Your task to perform on an android device: Search for sushi restaurants on Maps Image 0: 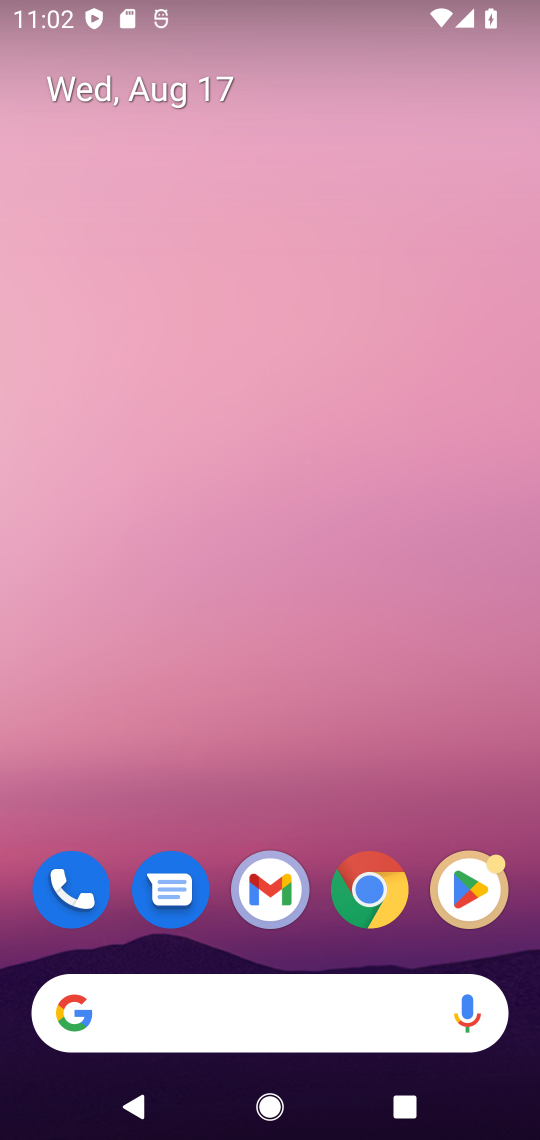
Step 0: drag from (300, 316) to (294, 21)
Your task to perform on an android device: Search for sushi restaurants on Maps Image 1: 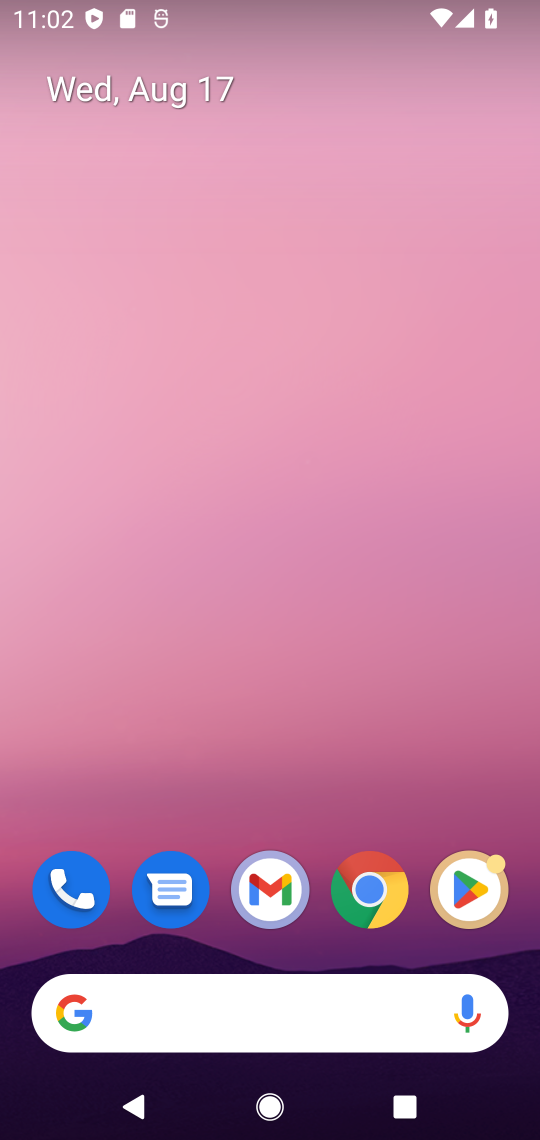
Step 1: drag from (243, 836) to (257, 1)
Your task to perform on an android device: Search for sushi restaurants on Maps Image 2: 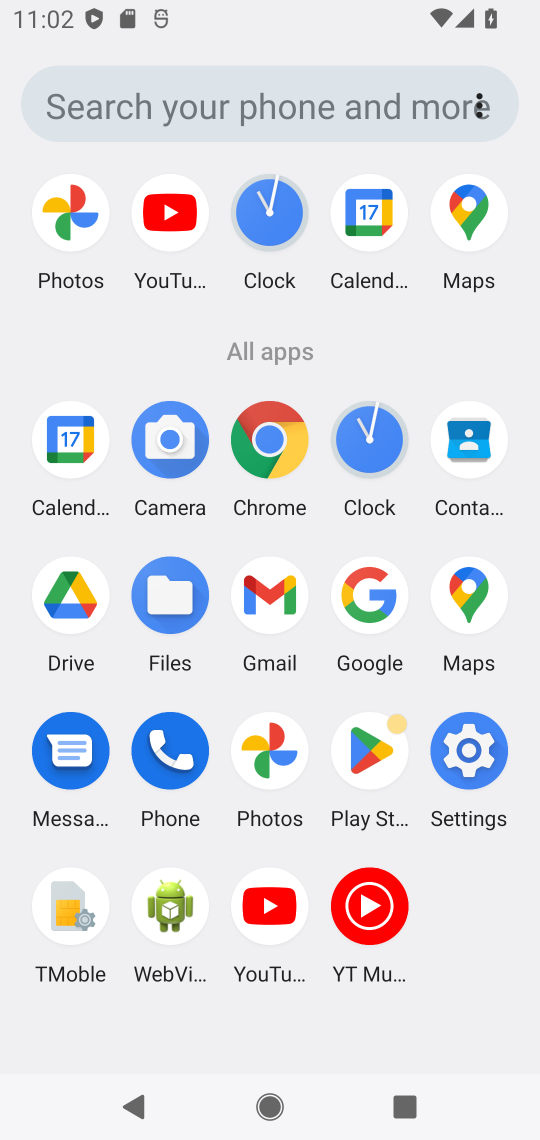
Step 2: click (464, 204)
Your task to perform on an android device: Search for sushi restaurants on Maps Image 3: 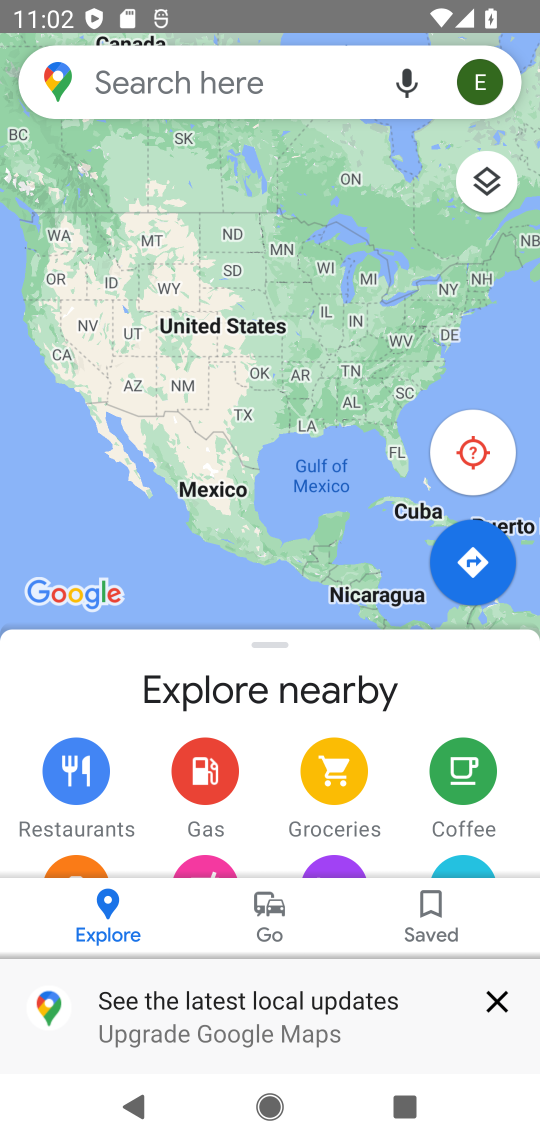
Step 3: click (279, 89)
Your task to perform on an android device: Search for sushi restaurants on Maps Image 4: 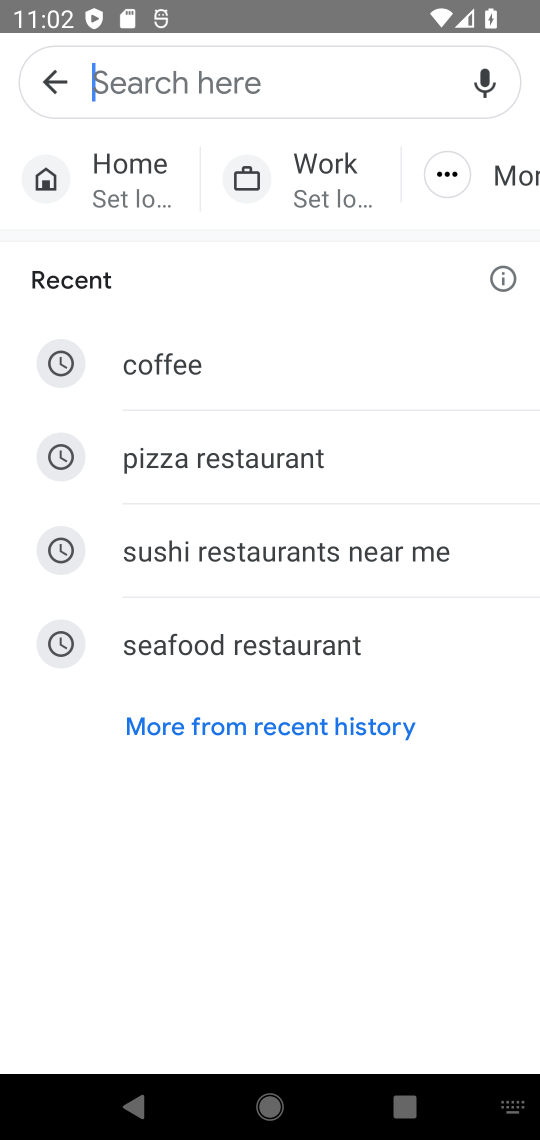
Step 4: click (246, 552)
Your task to perform on an android device: Search for sushi restaurants on Maps Image 5: 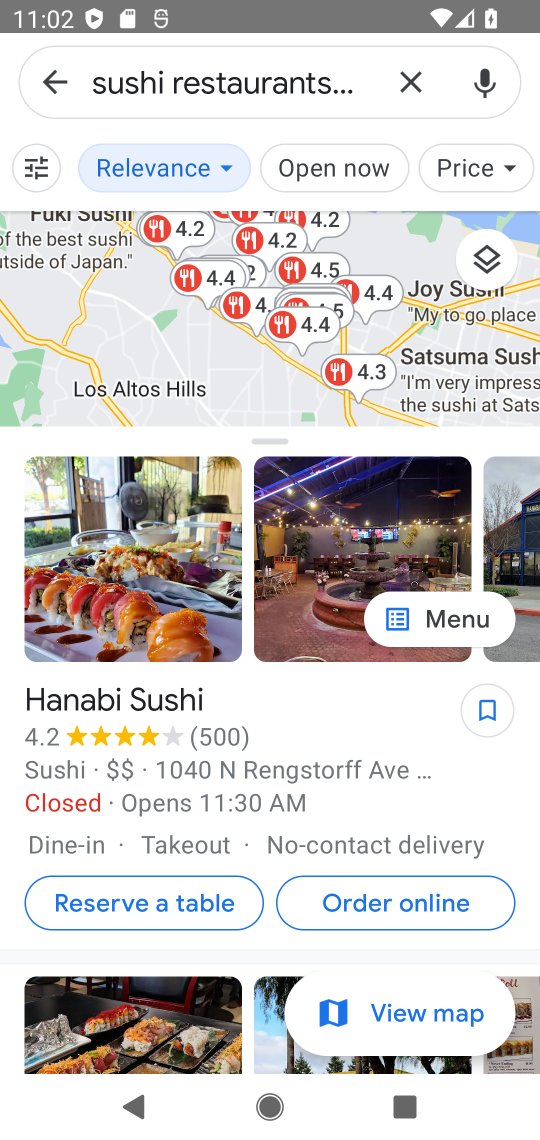
Step 5: task complete